Your task to perform on an android device: toggle javascript in the chrome app Image 0: 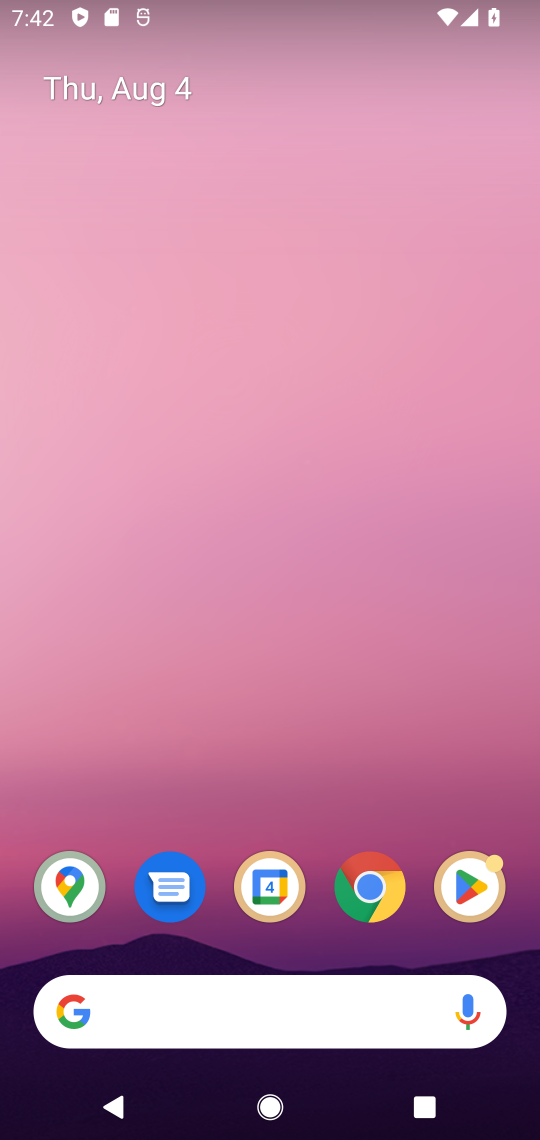
Step 0: drag from (252, 443) to (236, 93)
Your task to perform on an android device: toggle javascript in the chrome app Image 1: 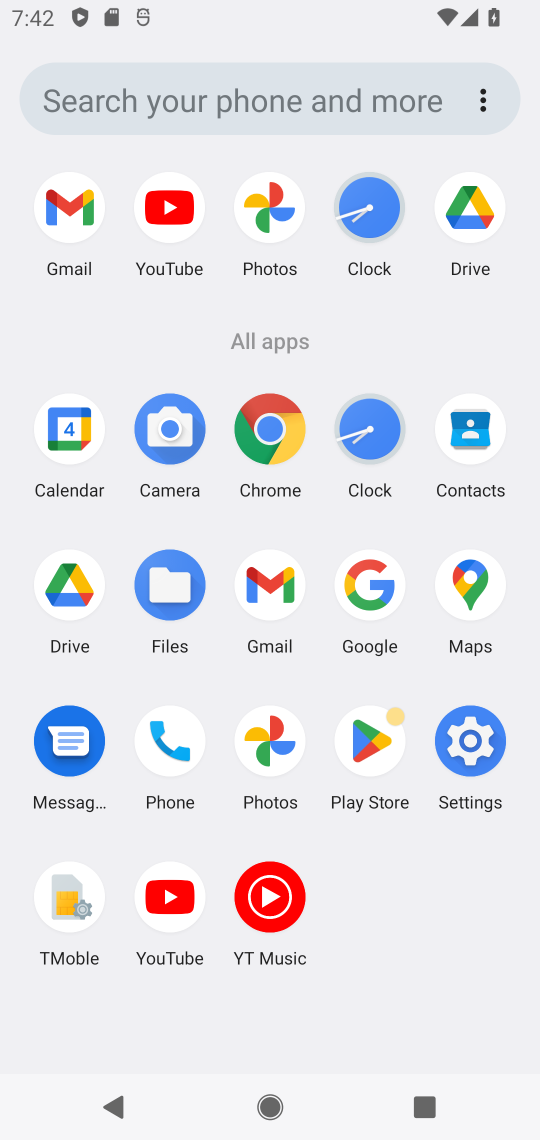
Step 1: click (274, 444)
Your task to perform on an android device: toggle javascript in the chrome app Image 2: 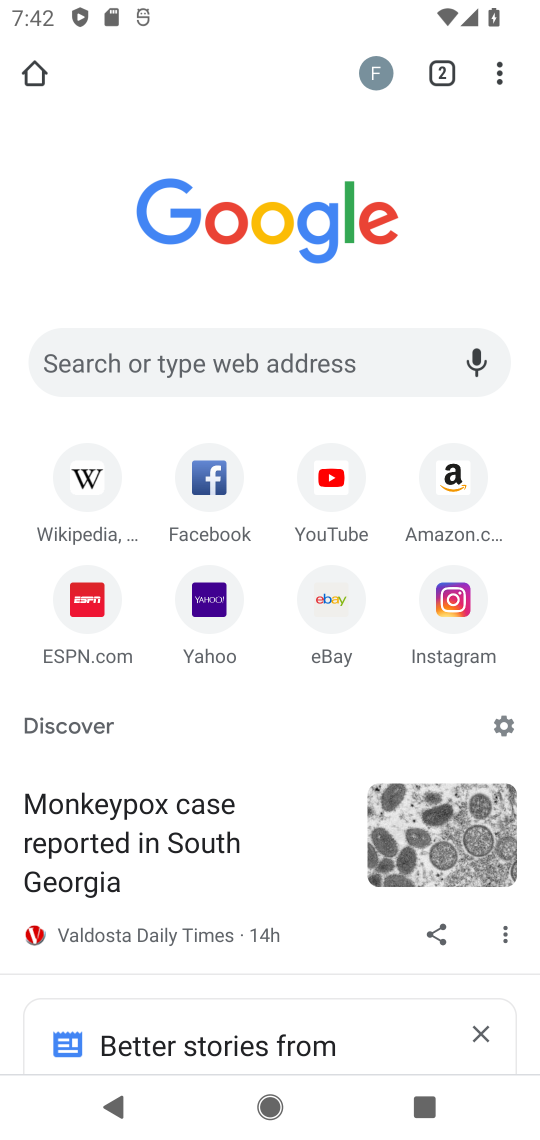
Step 2: click (505, 77)
Your task to perform on an android device: toggle javascript in the chrome app Image 3: 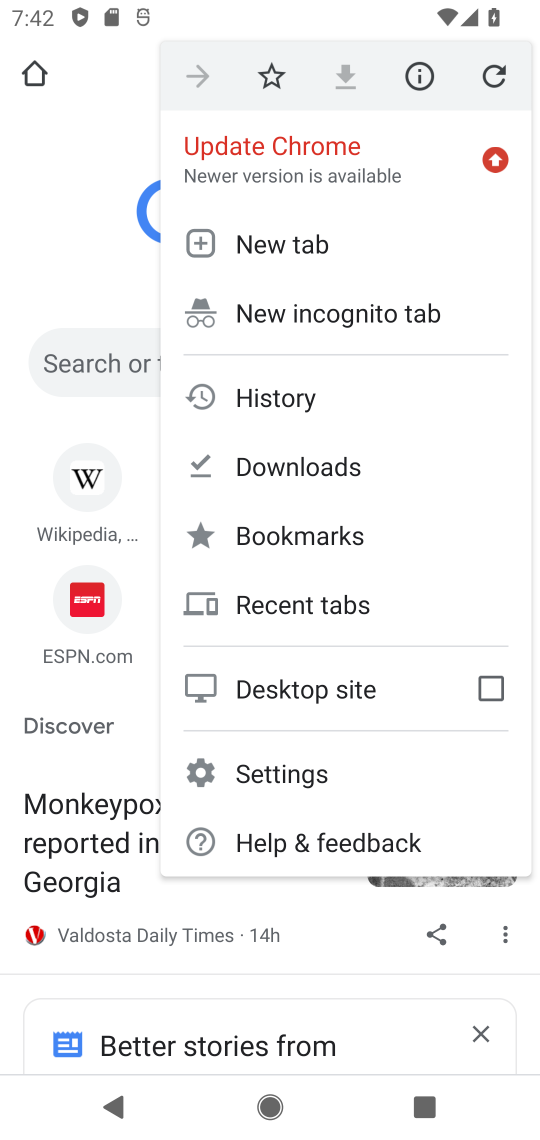
Step 3: click (314, 778)
Your task to perform on an android device: toggle javascript in the chrome app Image 4: 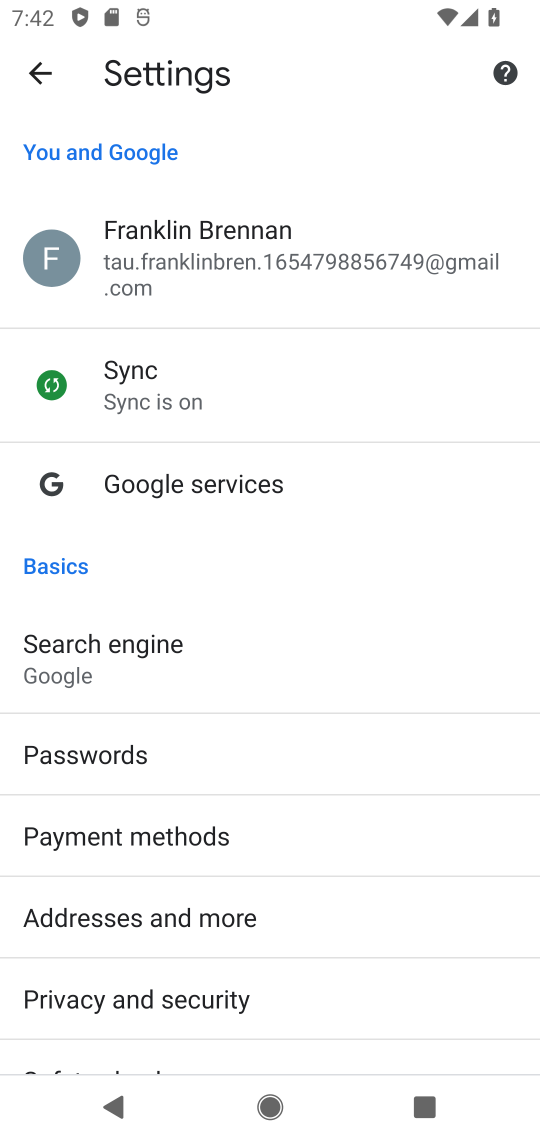
Step 4: drag from (161, 975) to (141, 280)
Your task to perform on an android device: toggle javascript in the chrome app Image 5: 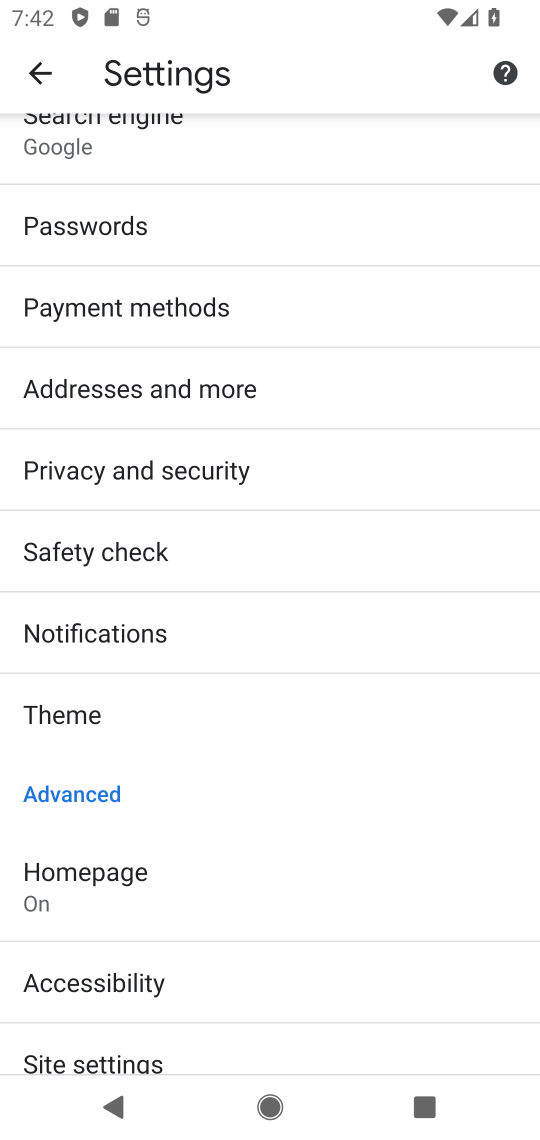
Step 5: click (112, 1061)
Your task to perform on an android device: toggle javascript in the chrome app Image 6: 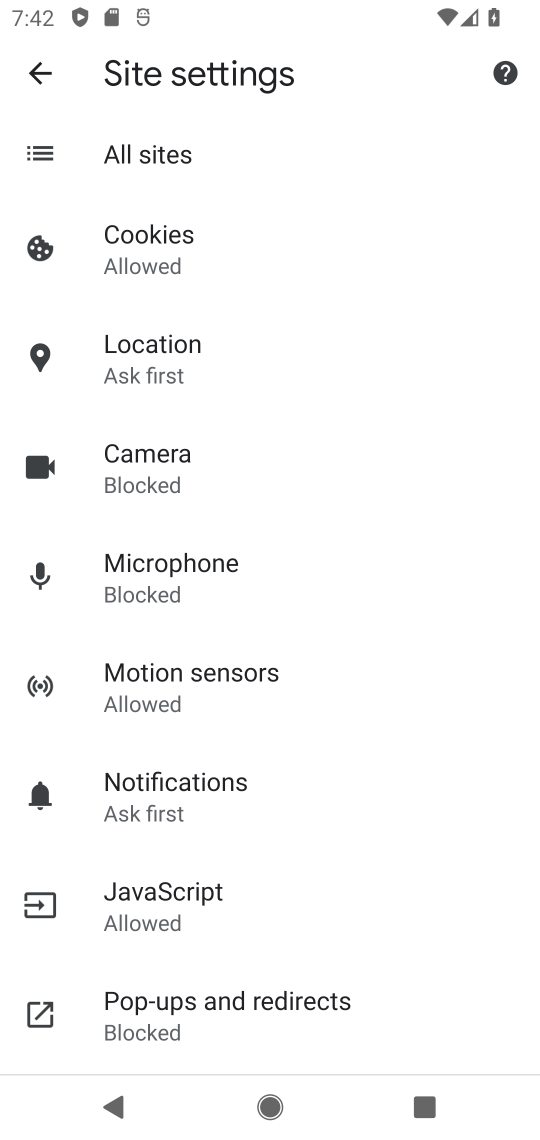
Step 6: click (127, 907)
Your task to perform on an android device: toggle javascript in the chrome app Image 7: 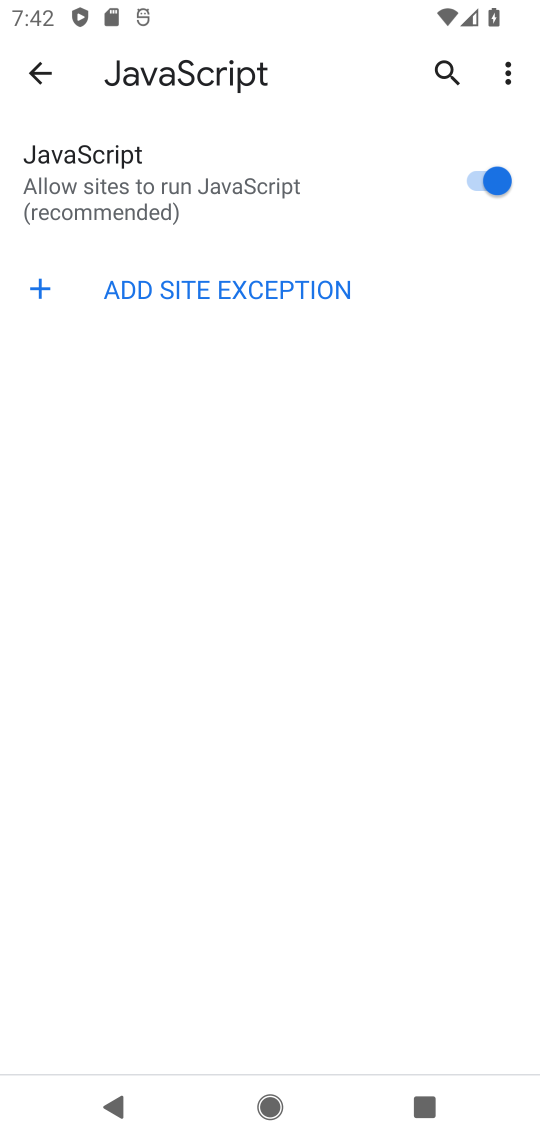
Step 7: click (487, 186)
Your task to perform on an android device: toggle javascript in the chrome app Image 8: 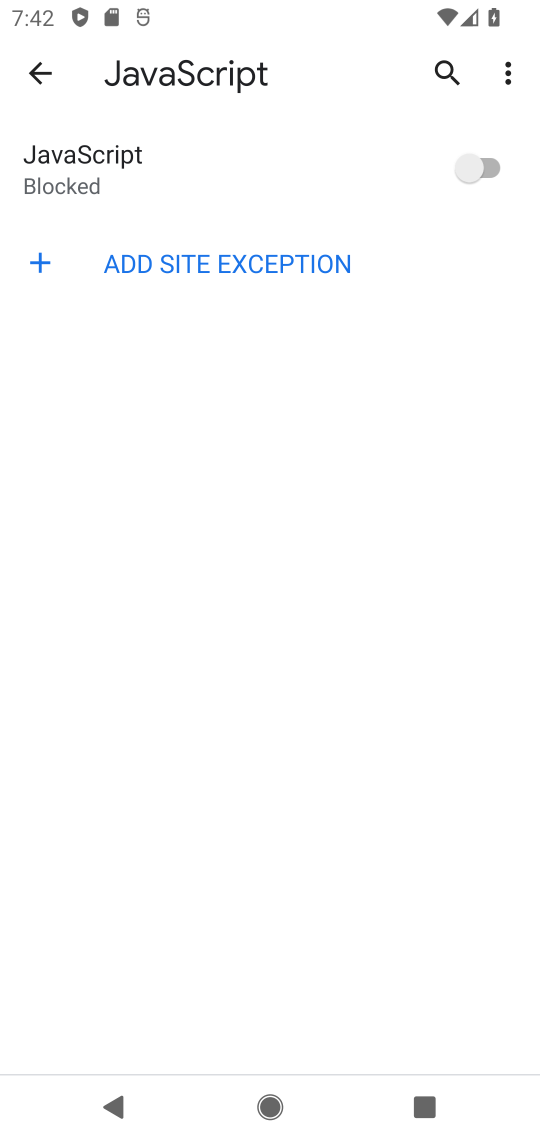
Step 8: task complete